Your task to perform on an android device: Is it going to rain tomorrow? Image 0: 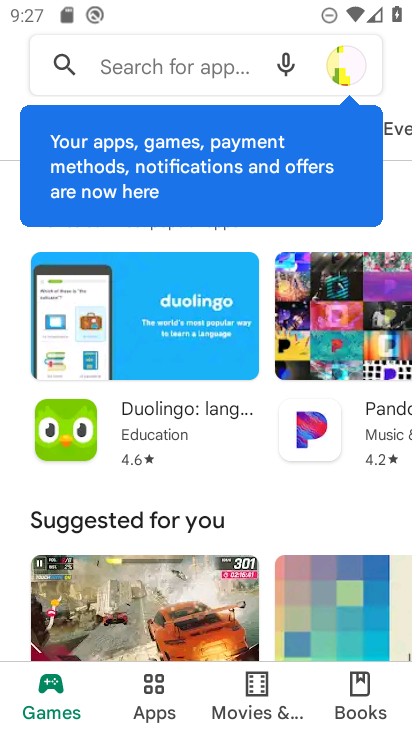
Step 0: press home button
Your task to perform on an android device: Is it going to rain tomorrow? Image 1: 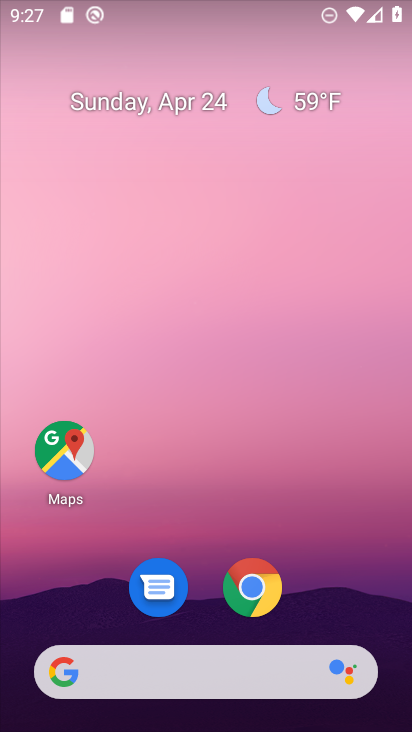
Step 1: drag from (210, 534) to (213, 89)
Your task to perform on an android device: Is it going to rain tomorrow? Image 2: 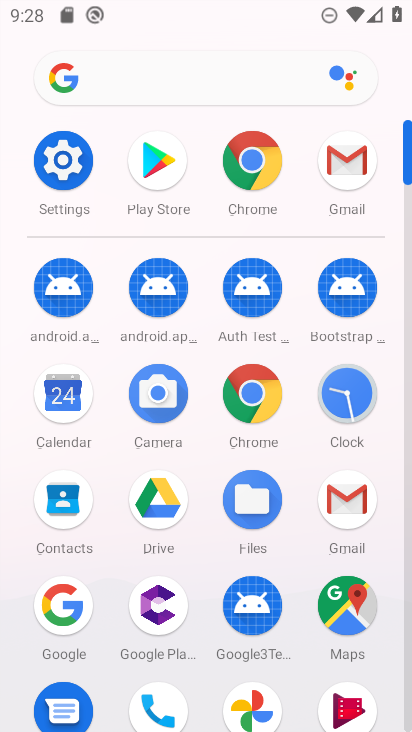
Step 2: click (60, 608)
Your task to perform on an android device: Is it going to rain tomorrow? Image 3: 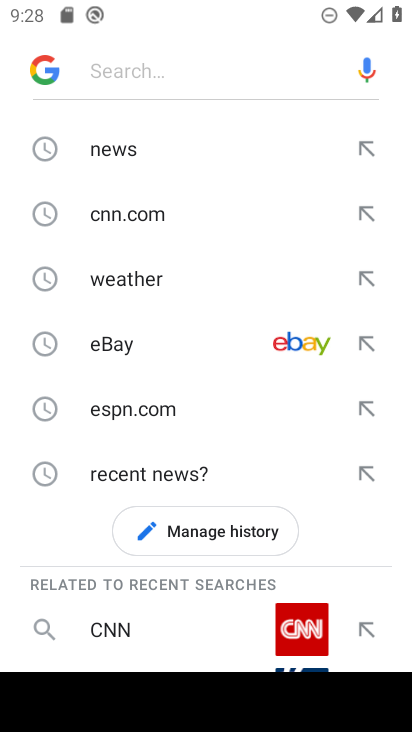
Step 3: click (129, 284)
Your task to perform on an android device: Is it going to rain tomorrow? Image 4: 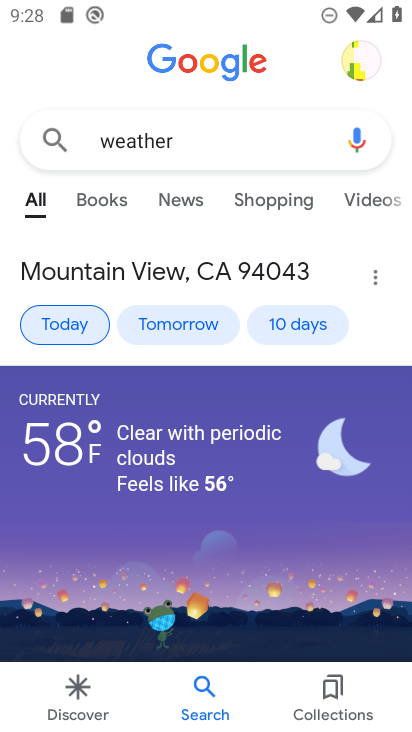
Step 4: click (184, 324)
Your task to perform on an android device: Is it going to rain tomorrow? Image 5: 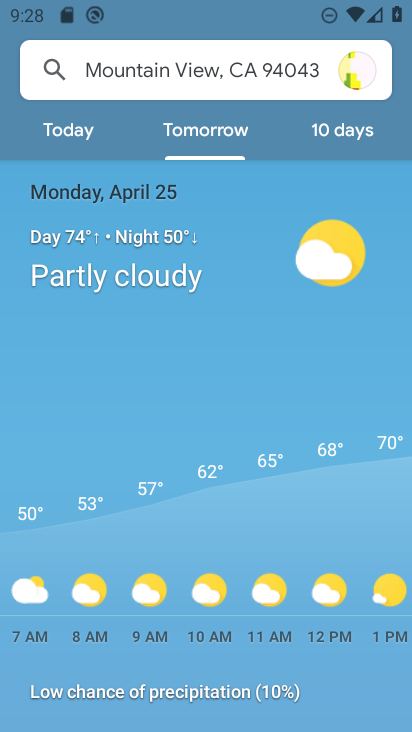
Step 5: task complete